Your task to perform on an android device: Clear the shopping cart on costco.com. Search for dell alienware on costco.com, select the first entry, add it to the cart, then select checkout. Image 0: 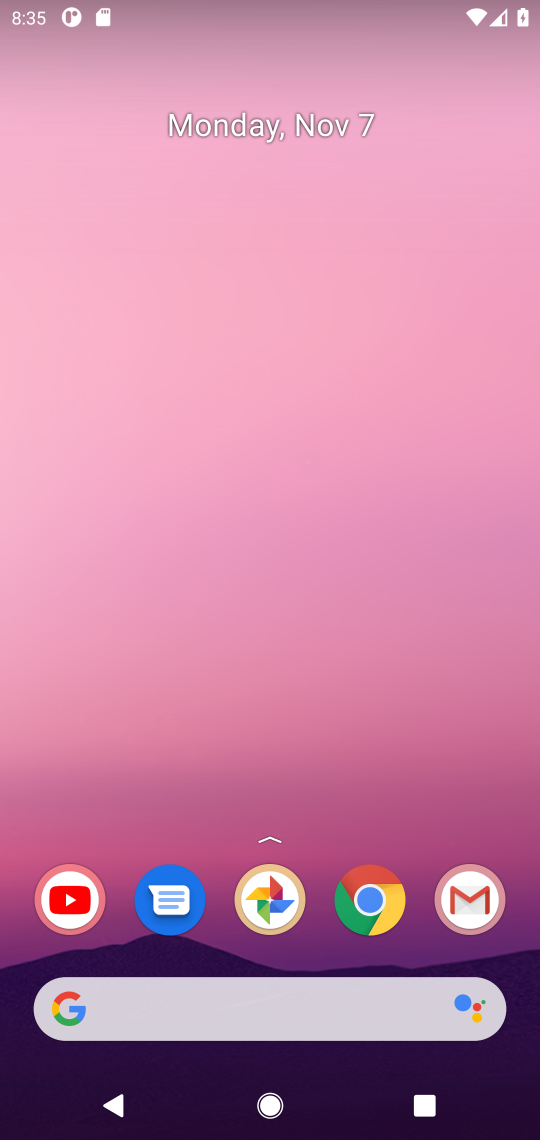
Step 0: drag from (371, 817) to (356, 388)
Your task to perform on an android device: Clear the shopping cart on costco.com. Search for dell alienware on costco.com, select the first entry, add it to the cart, then select checkout. Image 1: 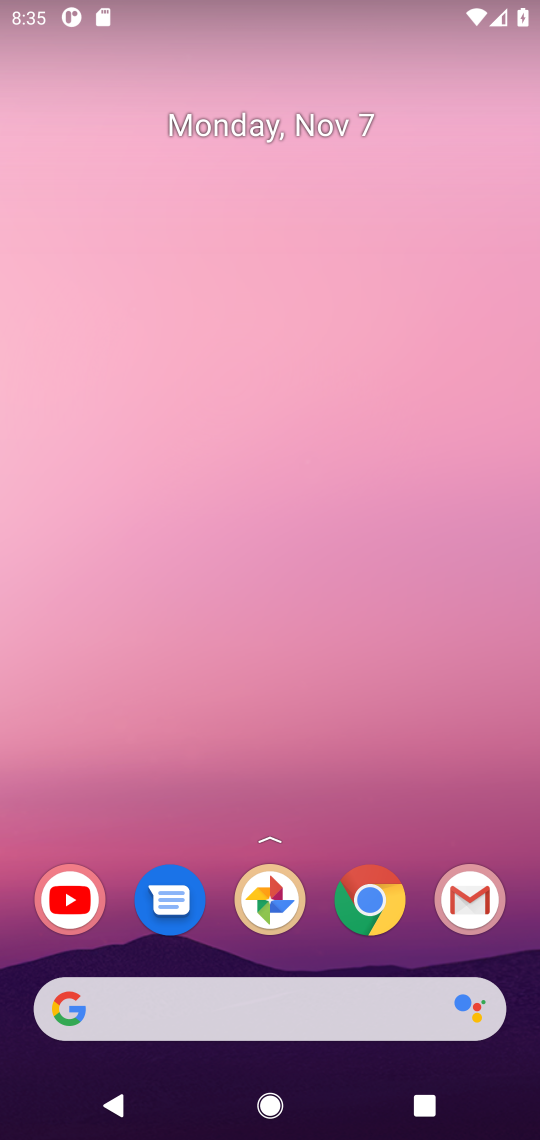
Step 1: drag from (249, 1005) to (338, 372)
Your task to perform on an android device: Clear the shopping cart on costco.com. Search for dell alienware on costco.com, select the first entry, add it to the cart, then select checkout. Image 2: 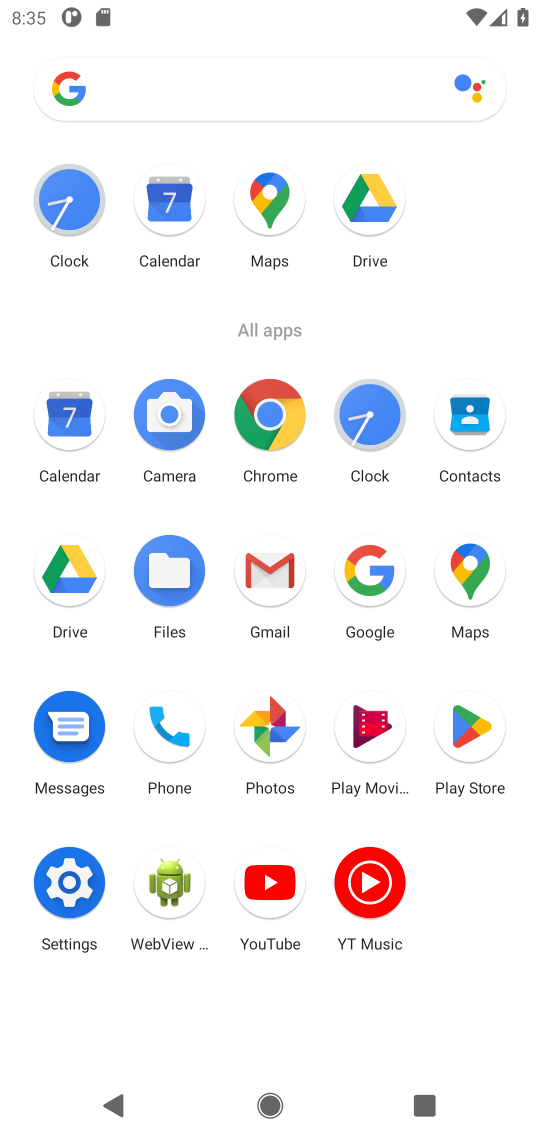
Step 2: click (362, 609)
Your task to perform on an android device: Clear the shopping cart on costco.com. Search for dell alienware on costco.com, select the first entry, add it to the cart, then select checkout. Image 3: 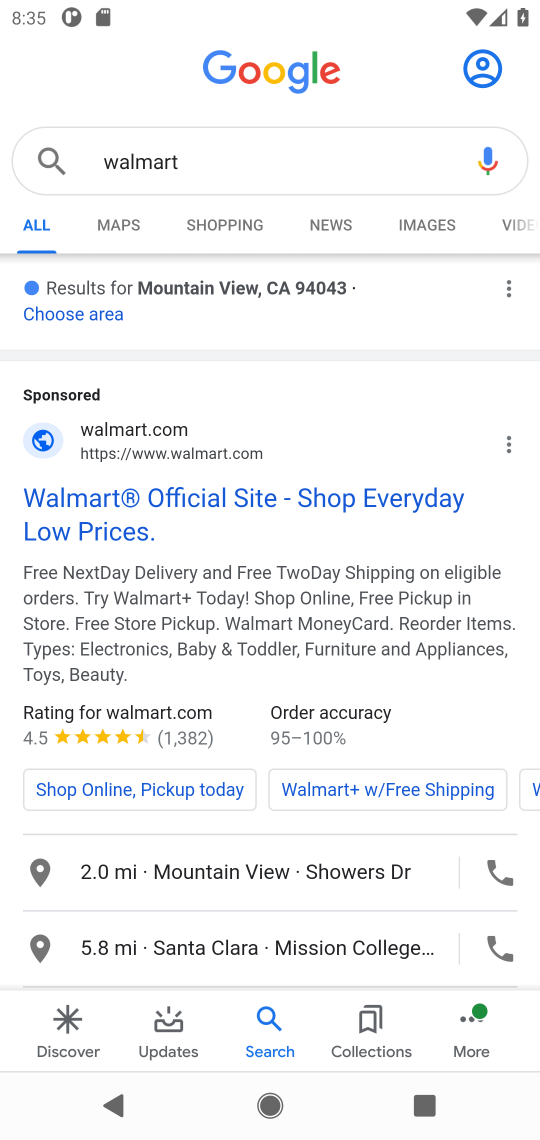
Step 3: click (380, 160)
Your task to perform on an android device: Clear the shopping cart on costco.com. Search for dell alienware on costco.com, select the first entry, add it to the cart, then select checkout. Image 4: 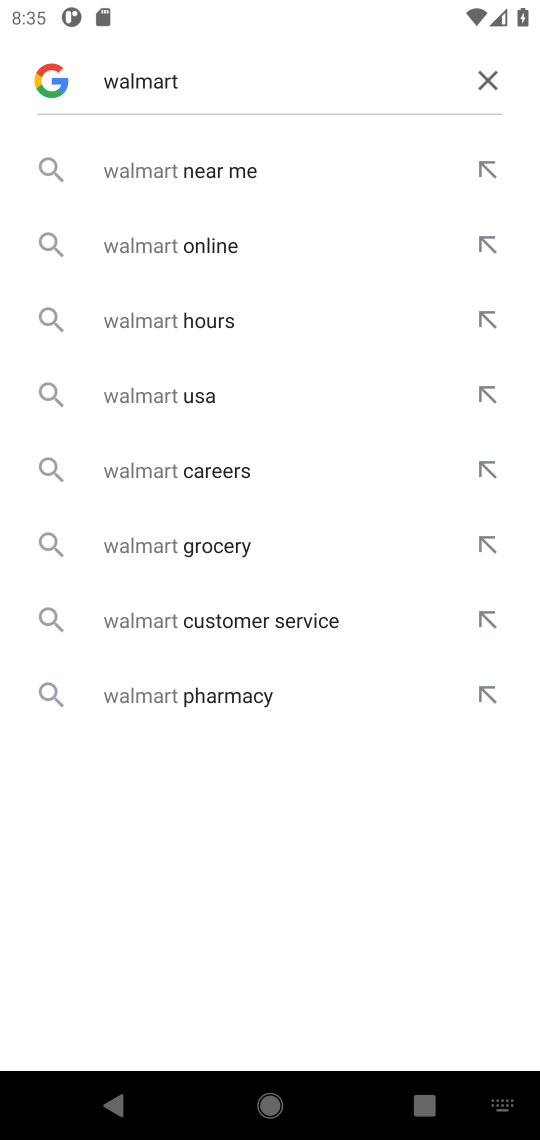
Step 4: click (478, 86)
Your task to perform on an android device: Clear the shopping cart on costco.com. Search for dell alienware on costco.com, select the first entry, add it to the cart, then select checkout. Image 5: 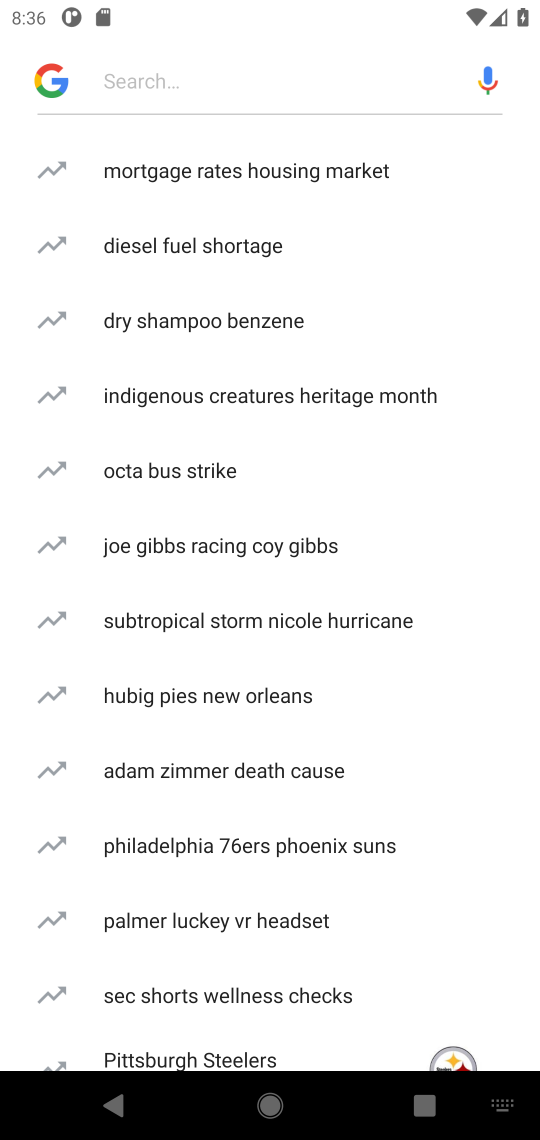
Step 5: type "costco.com"
Your task to perform on an android device: Clear the shopping cart on costco.com. Search for dell alienware on costco.com, select the first entry, add it to the cart, then select checkout. Image 6: 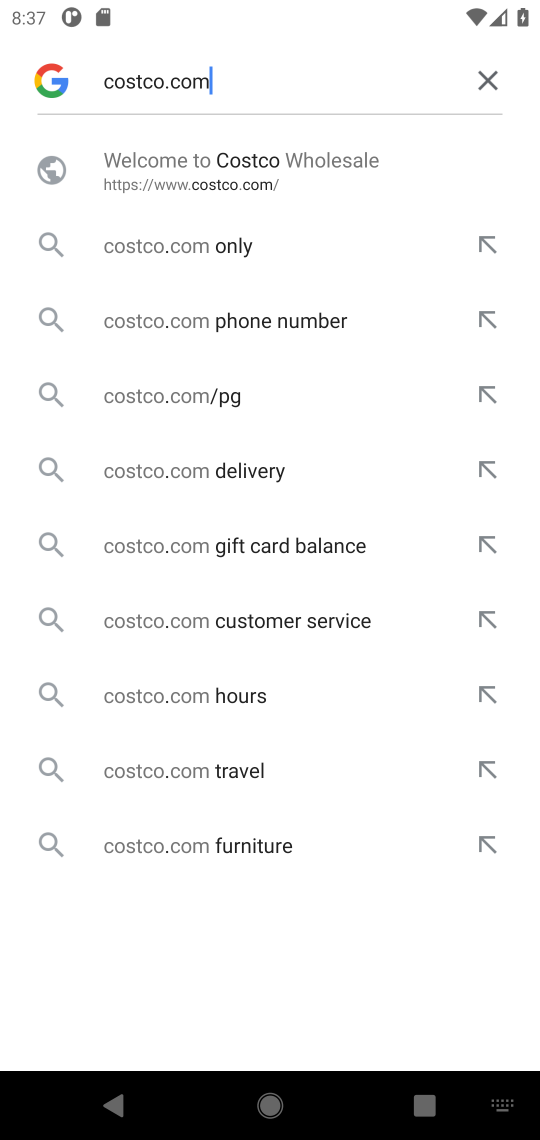
Step 6: click (272, 169)
Your task to perform on an android device: Clear the shopping cart on costco.com. Search for dell alienware on costco.com, select the first entry, add it to the cart, then select checkout. Image 7: 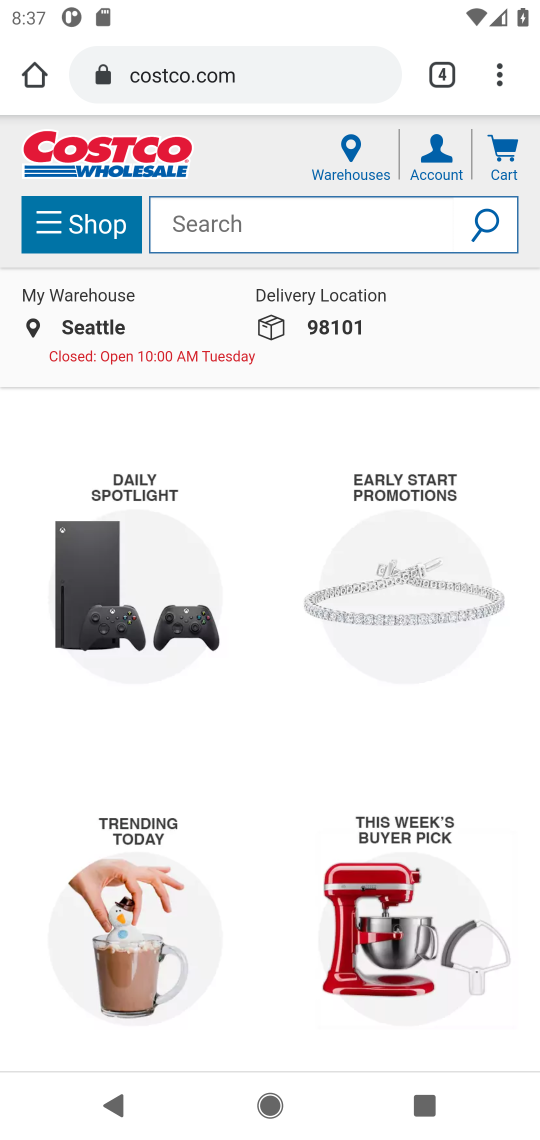
Step 7: click (275, 234)
Your task to perform on an android device: Clear the shopping cart on costco.com. Search for dell alienware on costco.com, select the first entry, add it to the cart, then select checkout. Image 8: 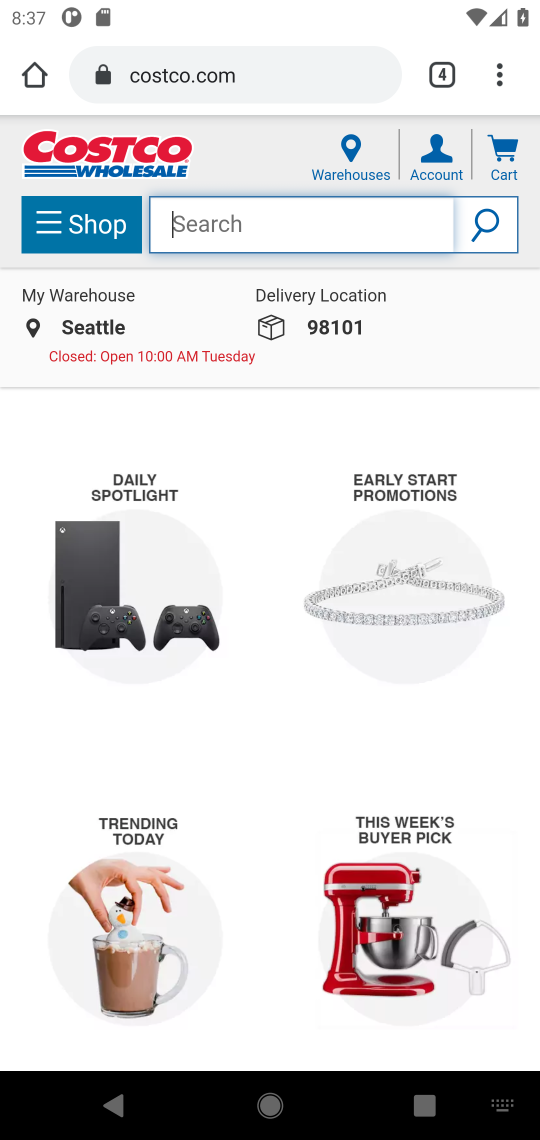
Step 8: type "dell alienware"
Your task to perform on an android device: Clear the shopping cart on costco.com. Search for dell alienware on costco.com, select the first entry, add it to the cart, then select checkout. Image 9: 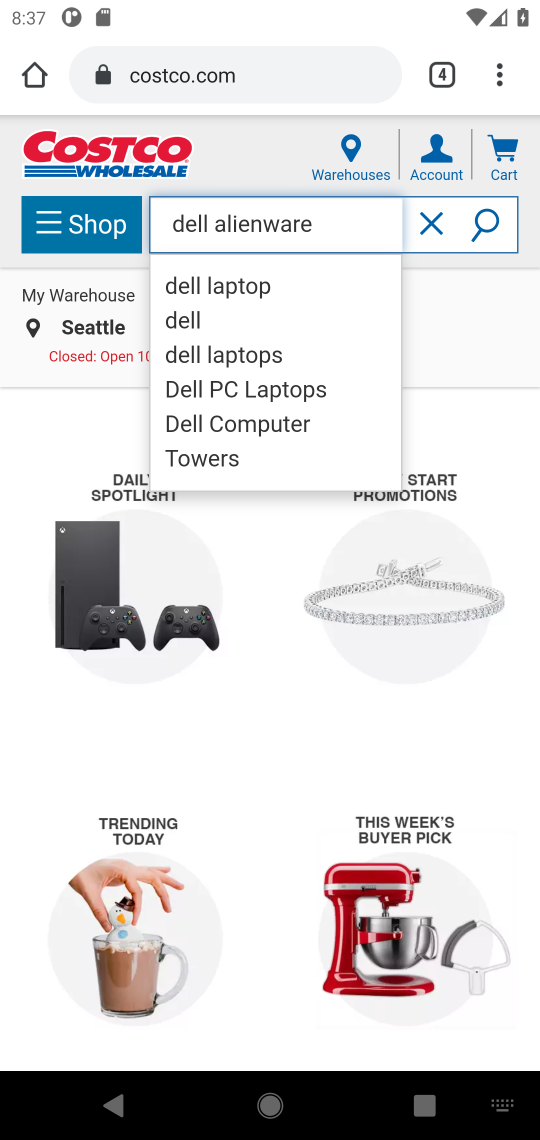
Step 9: click (475, 230)
Your task to perform on an android device: Clear the shopping cart on costco.com. Search for dell alienware on costco.com, select the first entry, add it to the cart, then select checkout. Image 10: 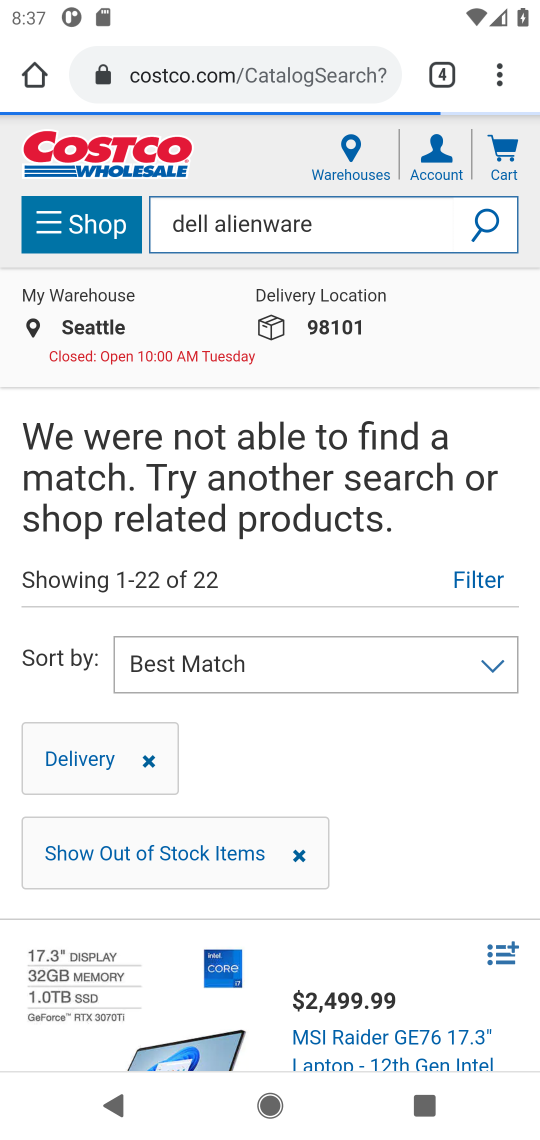
Step 10: drag from (369, 895) to (375, 336)
Your task to perform on an android device: Clear the shopping cart on costco.com. Search for dell alienware on costco.com, select the first entry, add it to the cart, then select checkout. Image 11: 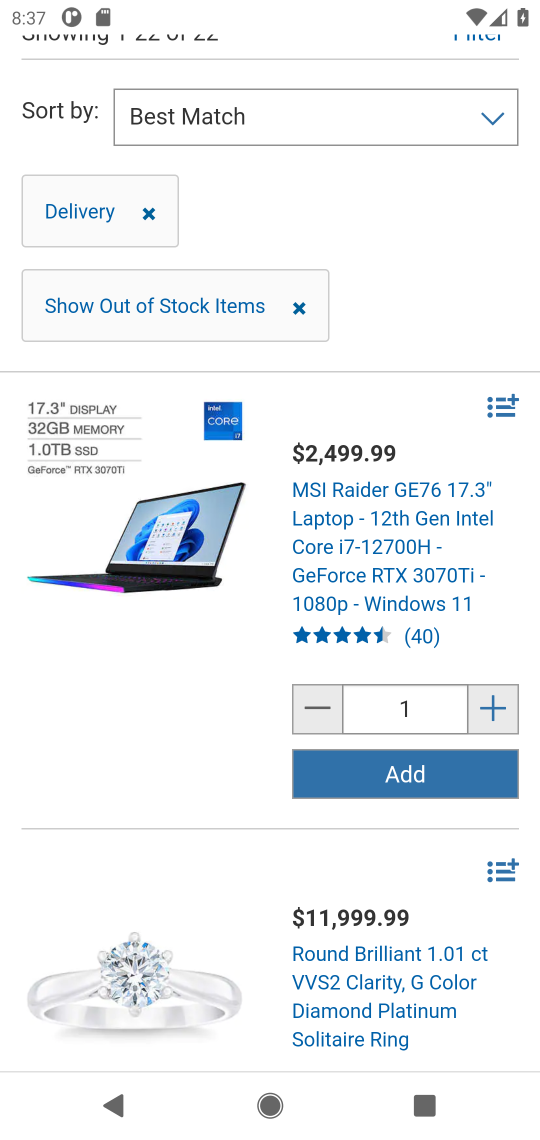
Step 11: click (408, 589)
Your task to perform on an android device: Clear the shopping cart on costco.com. Search for dell alienware on costco.com, select the first entry, add it to the cart, then select checkout. Image 12: 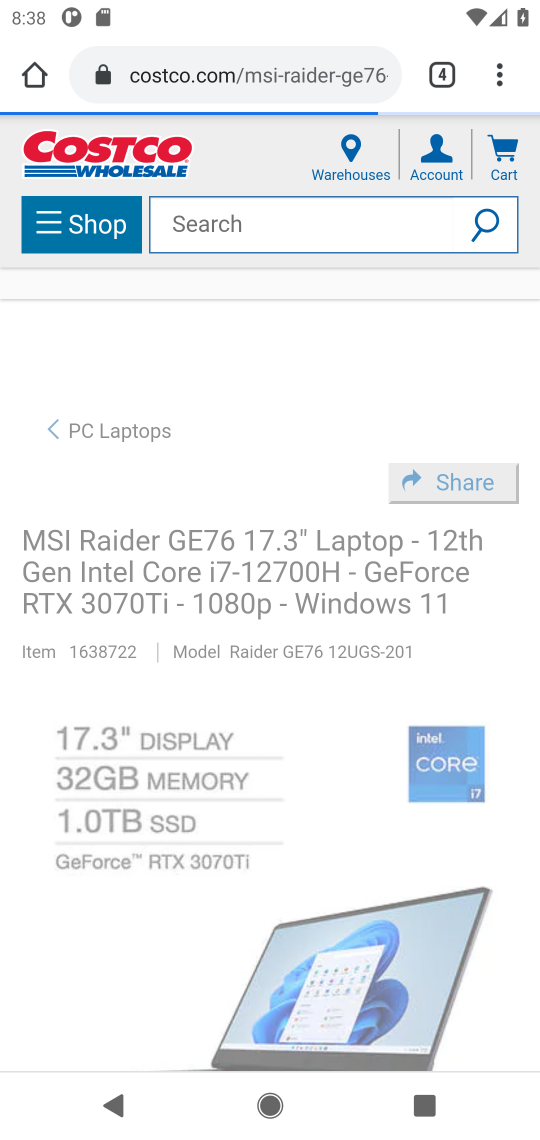
Step 12: click (505, 165)
Your task to perform on an android device: Clear the shopping cart on costco.com. Search for dell alienware on costco.com, select the first entry, add it to the cart, then select checkout. Image 13: 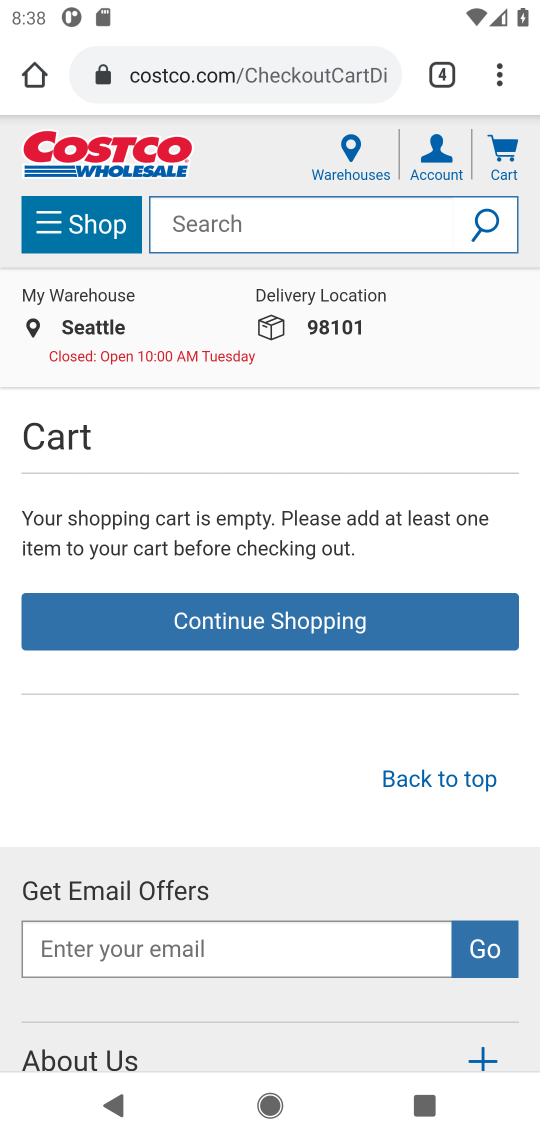
Step 13: press back button
Your task to perform on an android device: Clear the shopping cart on costco.com. Search for dell alienware on costco.com, select the first entry, add it to the cart, then select checkout. Image 14: 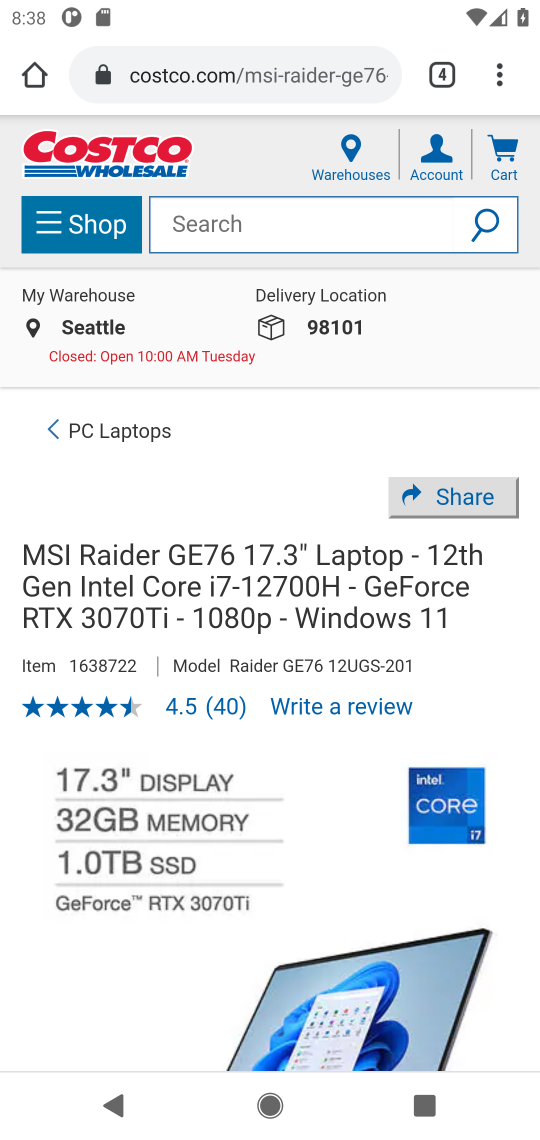
Step 14: drag from (333, 888) to (359, 534)
Your task to perform on an android device: Clear the shopping cart on costco.com. Search for dell alienware on costco.com, select the first entry, add it to the cart, then select checkout. Image 15: 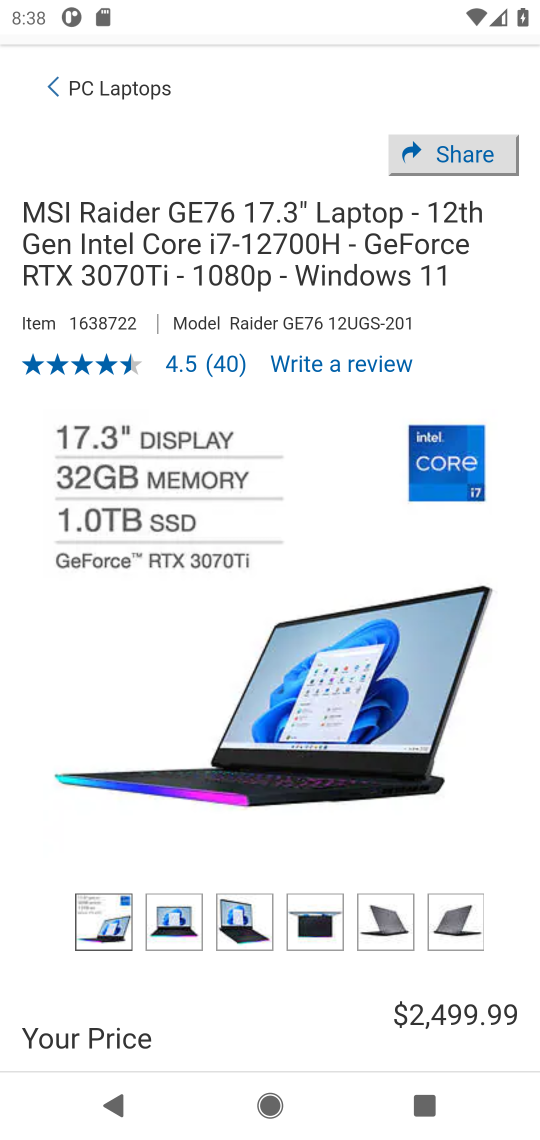
Step 15: drag from (327, 984) to (302, 779)
Your task to perform on an android device: Clear the shopping cart on costco.com. Search for dell alienware on costco.com, select the first entry, add it to the cart, then select checkout. Image 16: 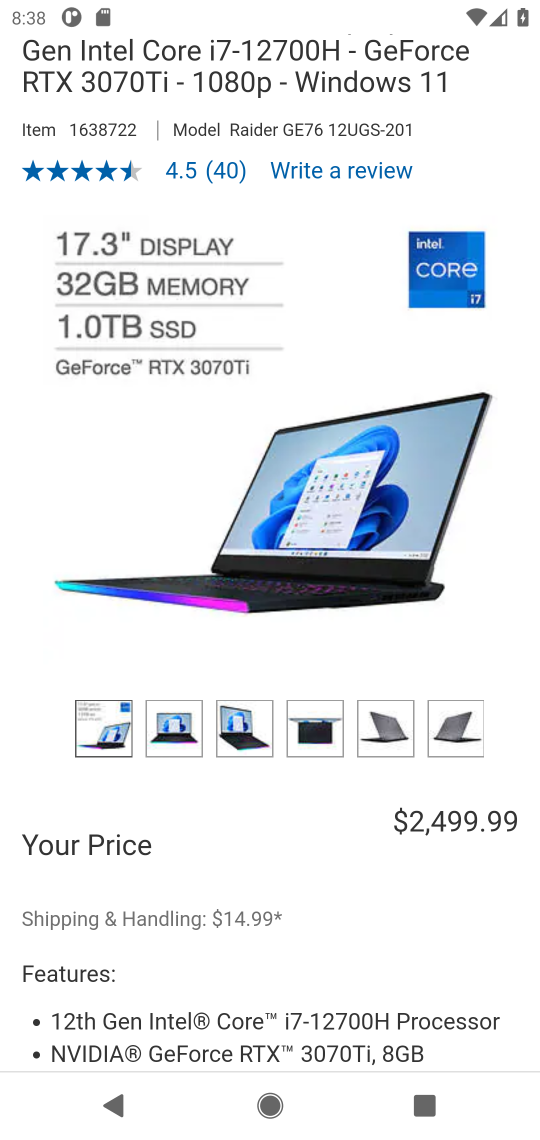
Step 16: drag from (329, 929) to (318, 595)
Your task to perform on an android device: Clear the shopping cart on costco.com. Search for dell alienware on costco.com, select the first entry, add it to the cart, then select checkout. Image 17: 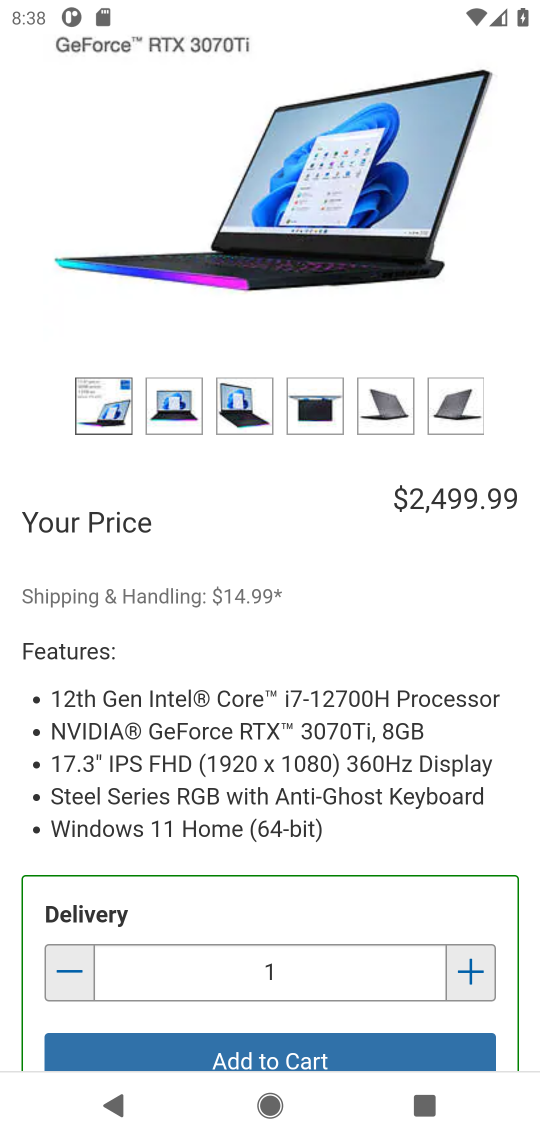
Step 17: drag from (333, 867) to (422, 338)
Your task to perform on an android device: Clear the shopping cart on costco.com. Search for dell alienware on costco.com, select the first entry, add it to the cart, then select checkout. Image 18: 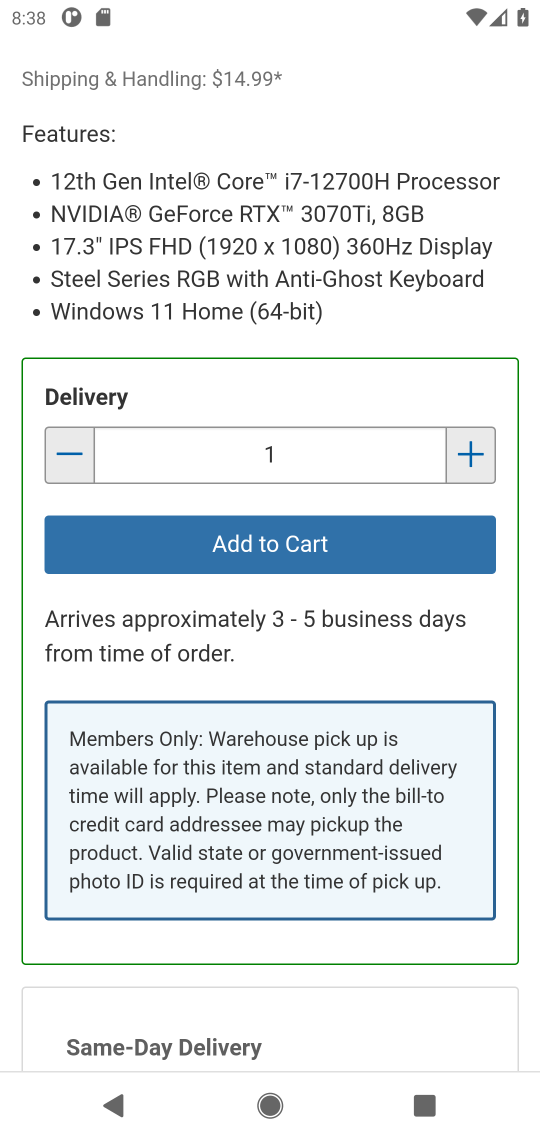
Step 18: click (349, 543)
Your task to perform on an android device: Clear the shopping cart on costco.com. Search for dell alienware on costco.com, select the first entry, add it to the cart, then select checkout. Image 19: 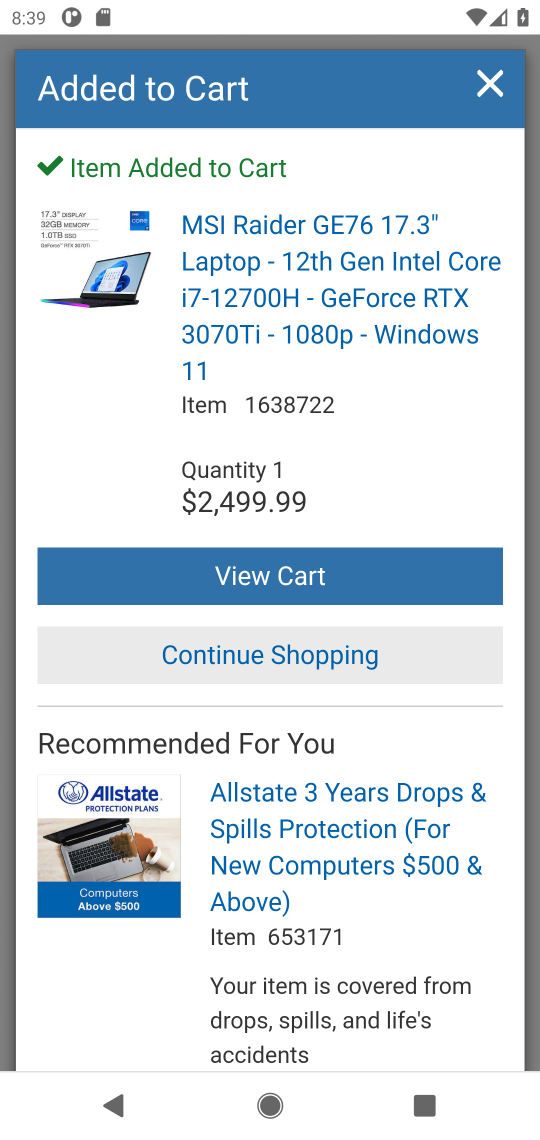
Step 19: click (339, 582)
Your task to perform on an android device: Clear the shopping cart on costco.com. Search for dell alienware on costco.com, select the first entry, add it to the cart, then select checkout. Image 20: 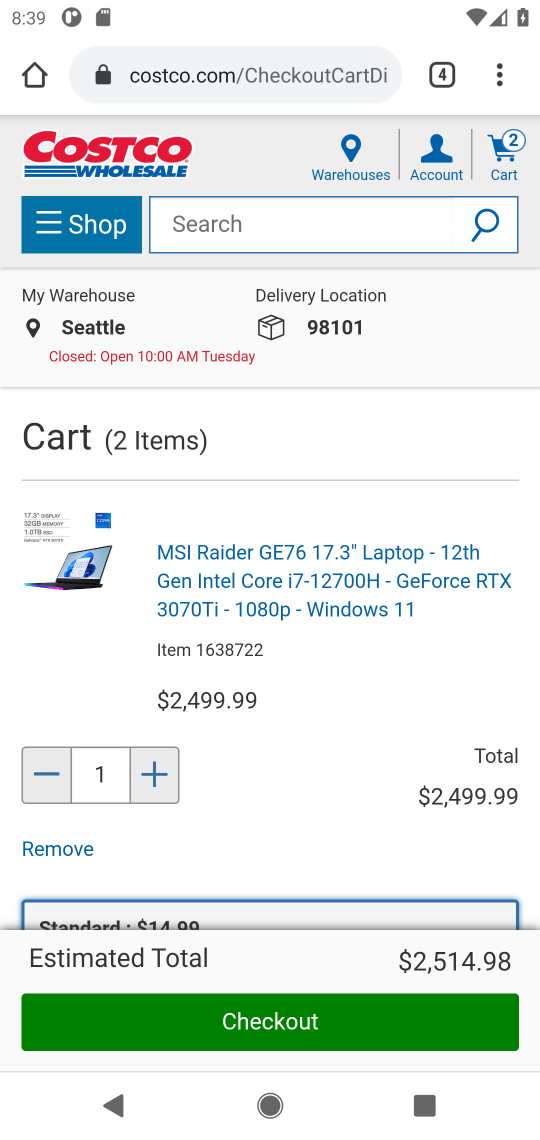
Step 20: click (351, 428)
Your task to perform on an android device: Clear the shopping cart on costco.com. Search for dell alienware on costco.com, select the first entry, add it to the cart, then select checkout. Image 21: 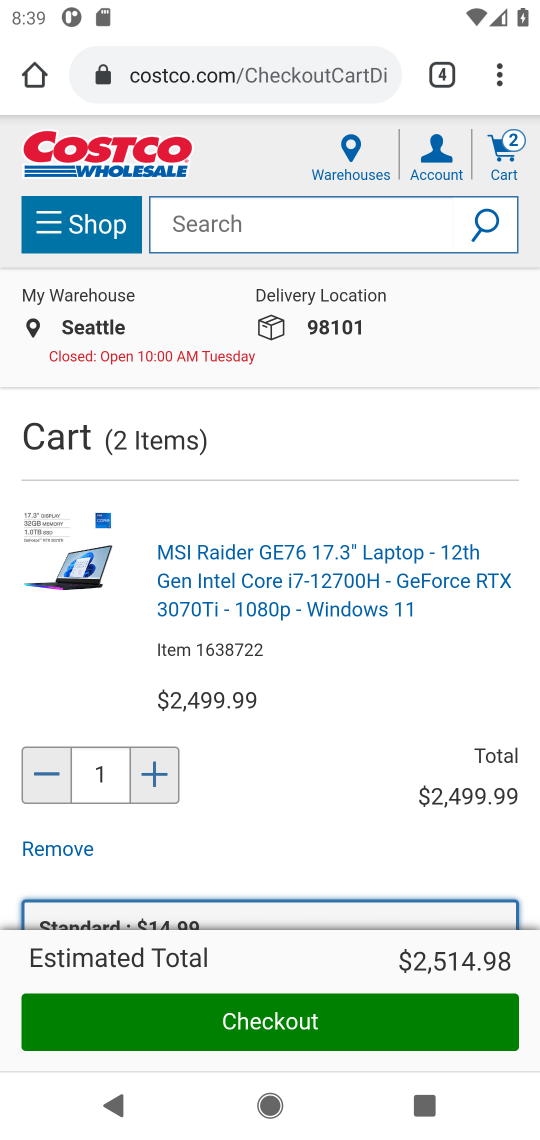
Step 21: click (355, 1036)
Your task to perform on an android device: Clear the shopping cart on costco.com. Search for dell alienware on costco.com, select the first entry, add it to the cart, then select checkout. Image 22: 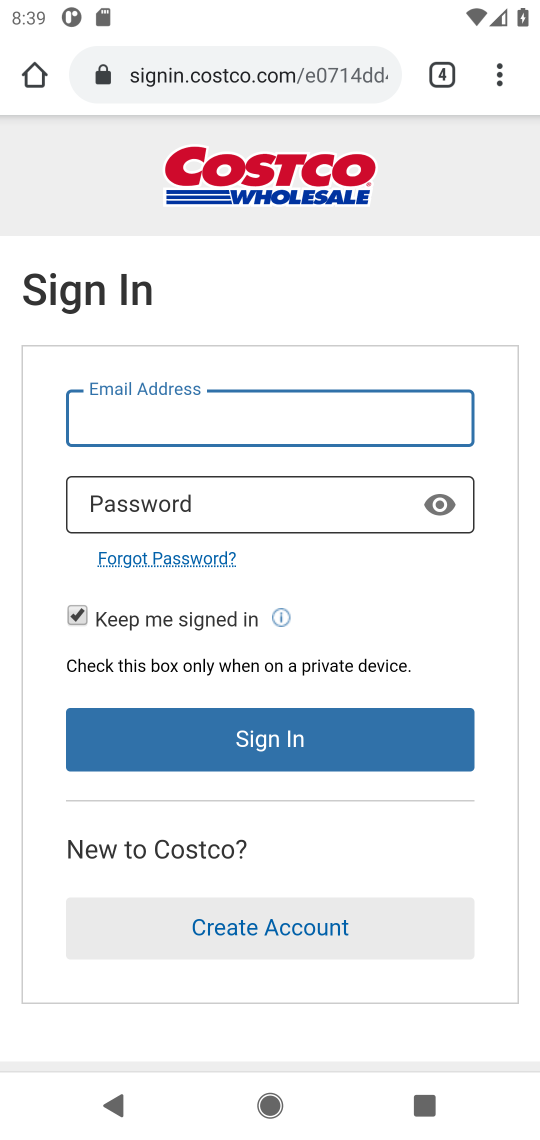
Step 22: task complete